Your task to perform on an android device: change the clock display to analog Image 0: 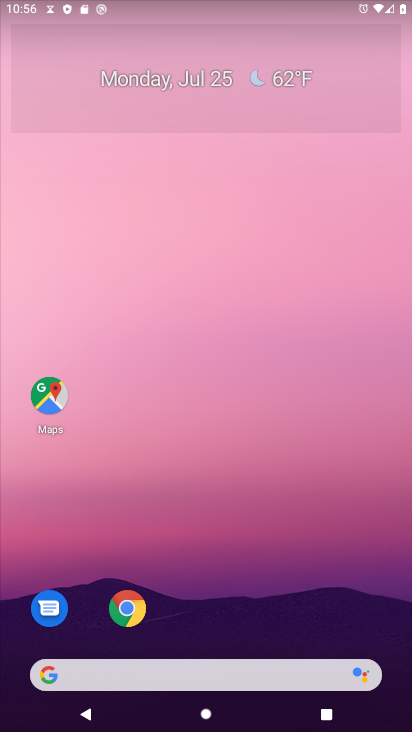
Step 0: drag from (205, 680) to (240, 180)
Your task to perform on an android device: change the clock display to analog Image 1: 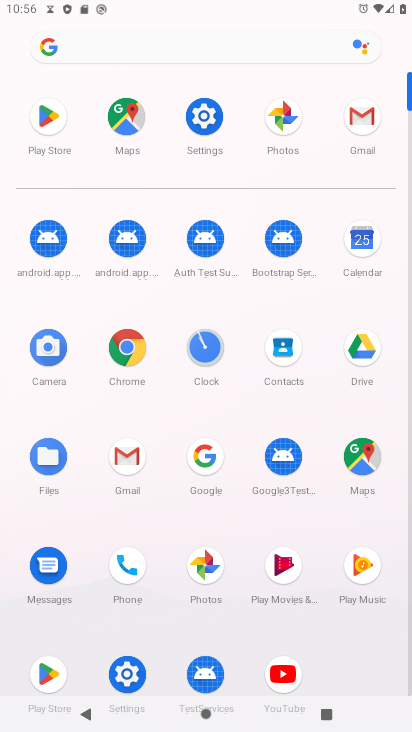
Step 1: click (205, 348)
Your task to perform on an android device: change the clock display to analog Image 2: 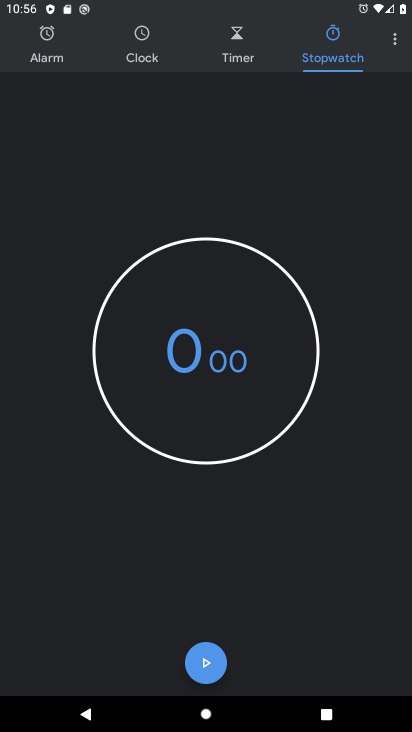
Step 2: click (395, 40)
Your task to perform on an android device: change the clock display to analog Image 3: 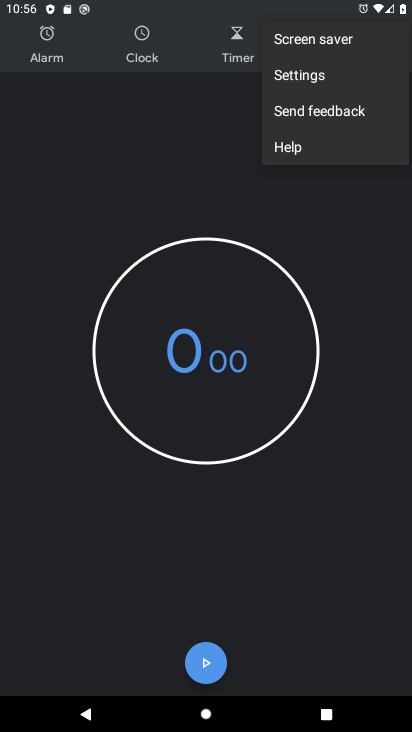
Step 3: click (315, 82)
Your task to perform on an android device: change the clock display to analog Image 4: 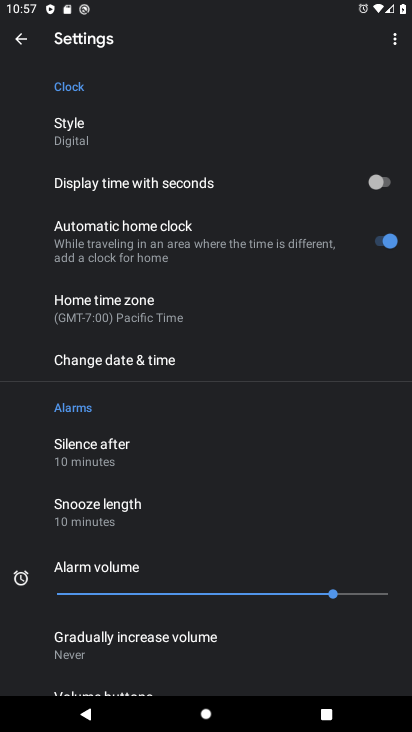
Step 4: click (84, 139)
Your task to perform on an android device: change the clock display to analog Image 5: 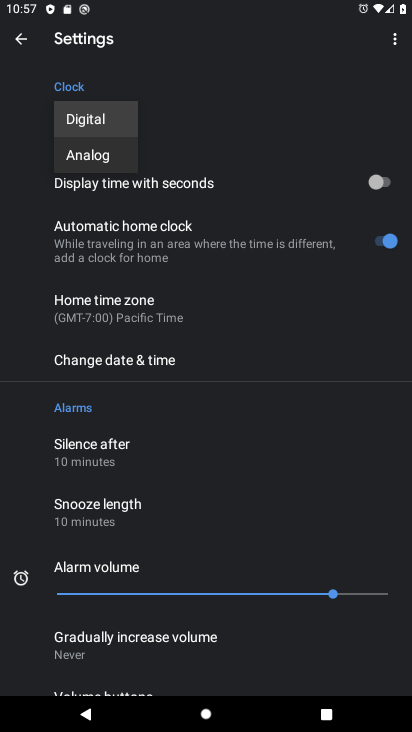
Step 5: click (95, 156)
Your task to perform on an android device: change the clock display to analog Image 6: 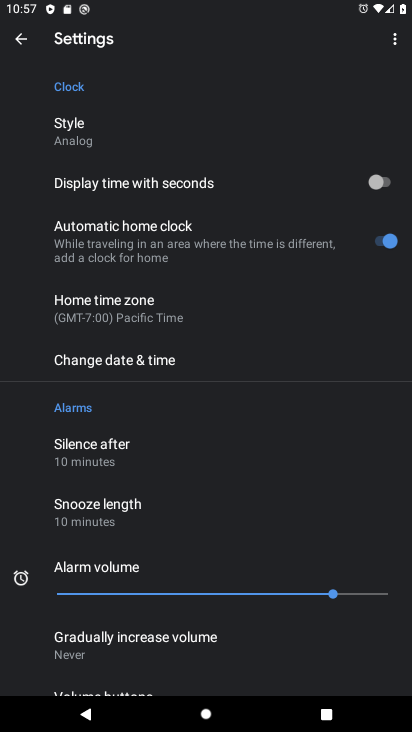
Step 6: task complete